Your task to perform on an android device: Open battery settings Image 0: 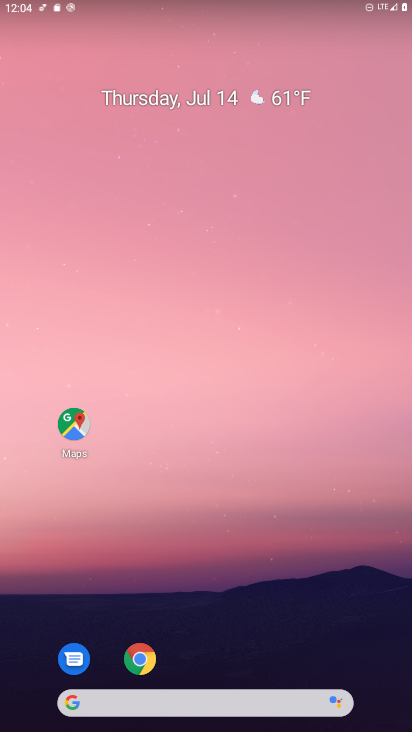
Step 0: drag from (379, 655) to (324, 131)
Your task to perform on an android device: Open battery settings Image 1: 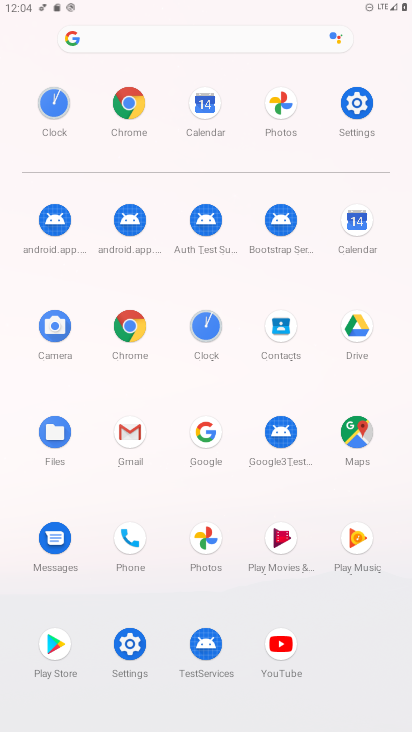
Step 1: click (131, 645)
Your task to perform on an android device: Open battery settings Image 2: 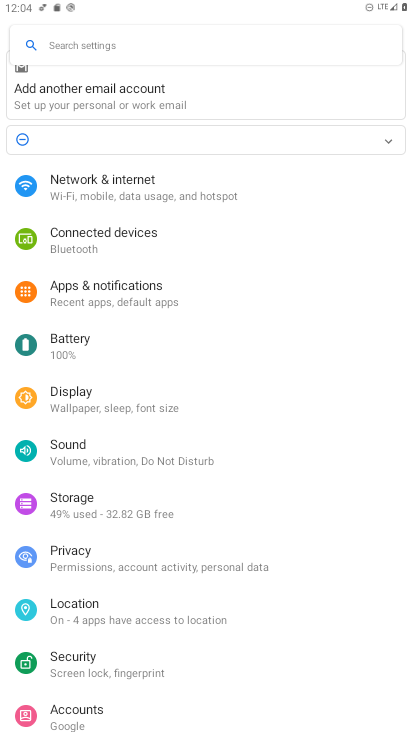
Step 2: click (71, 341)
Your task to perform on an android device: Open battery settings Image 3: 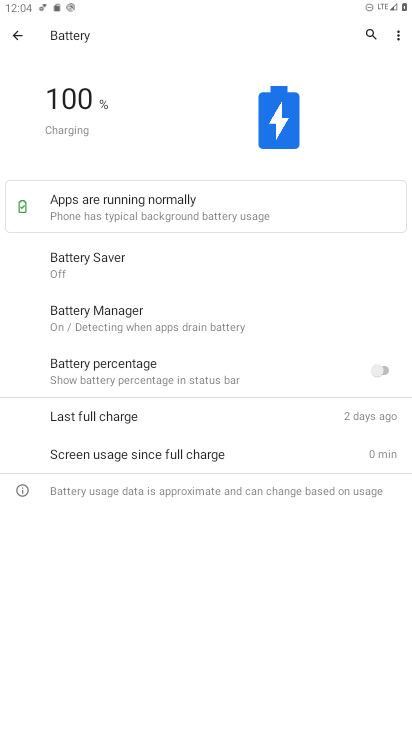
Step 3: task complete